Your task to perform on an android device: Add "corsair k70" to the cart on costco Image 0: 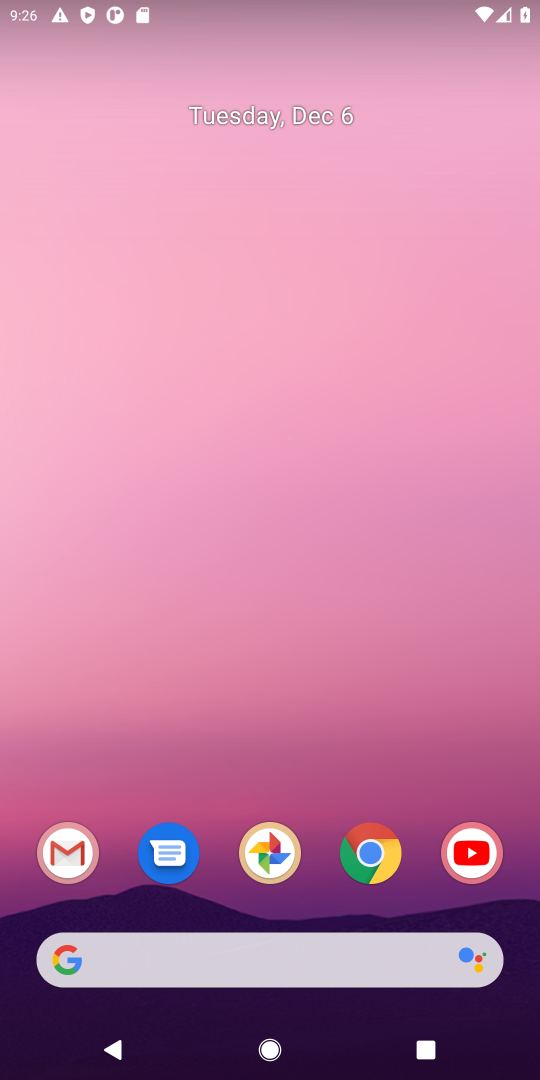
Step 0: task complete